Your task to perform on an android device: turn notification dots on Image 0: 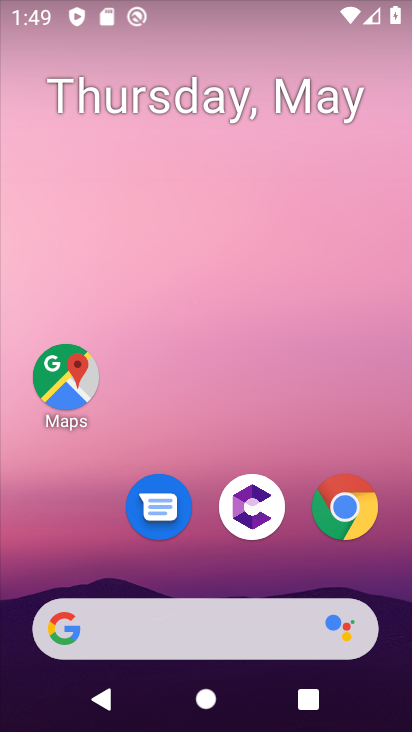
Step 0: drag from (321, 430) to (304, 66)
Your task to perform on an android device: turn notification dots on Image 1: 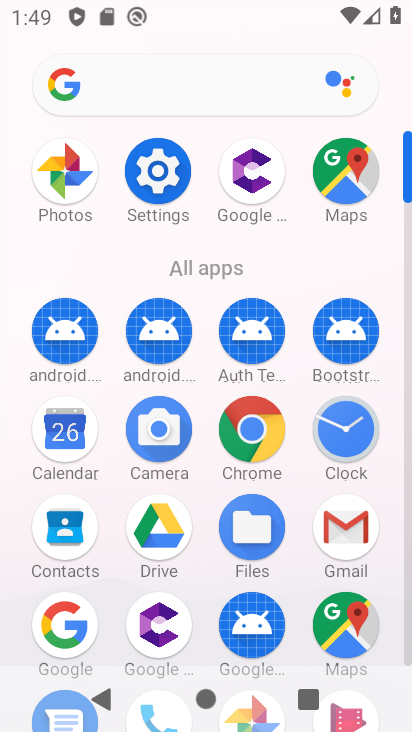
Step 1: click (152, 178)
Your task to perform on an android device: turn notification dots on Image 2: 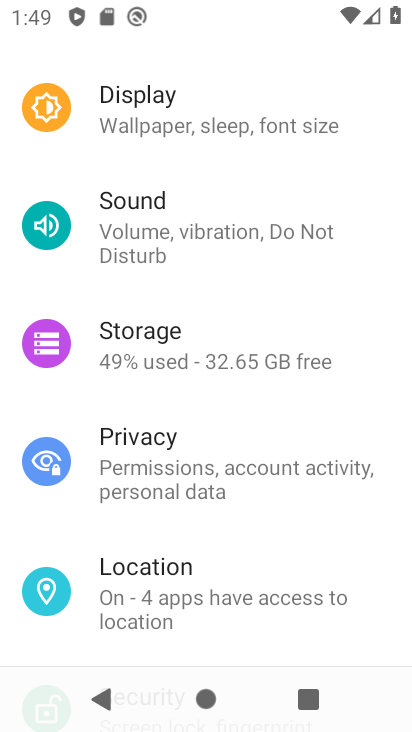
Step 2: drag from (271, 540) to (273, 49)
Your task to perform on an android device: turn notification dots on Image 3: 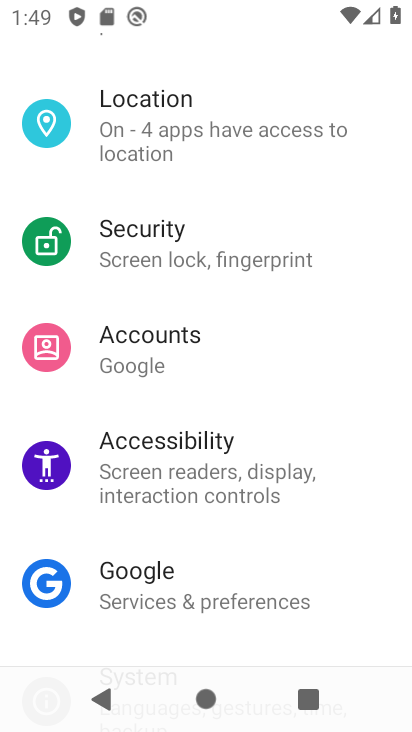
Step 3: drag from (241, 536) to (246, 722)
Your task to perform on an android device: turn notification dots on Image 4: 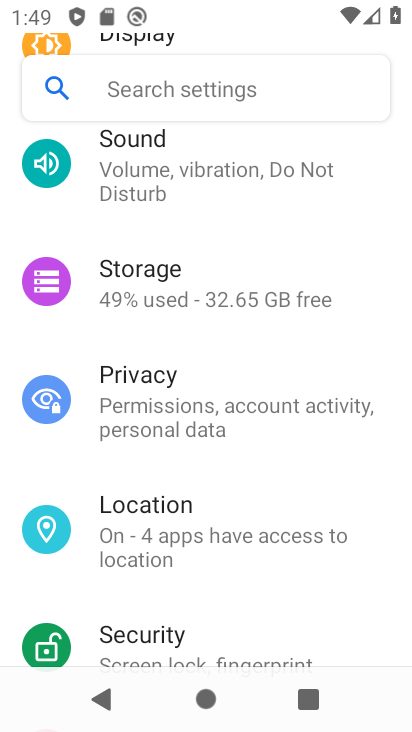
Step 4: drag from (278, 217) to (218, 712)
Your task to perform on an android device: turn notification dots on Image 5: 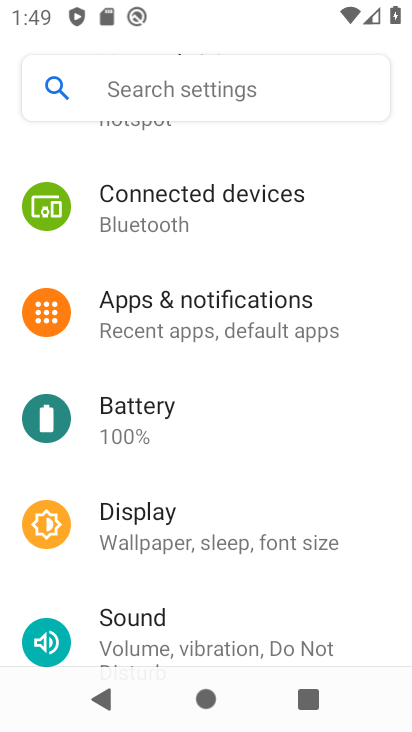
Step 5: click (174, 316)
Your task to perform on an android device: turn notification dots on Image 6: 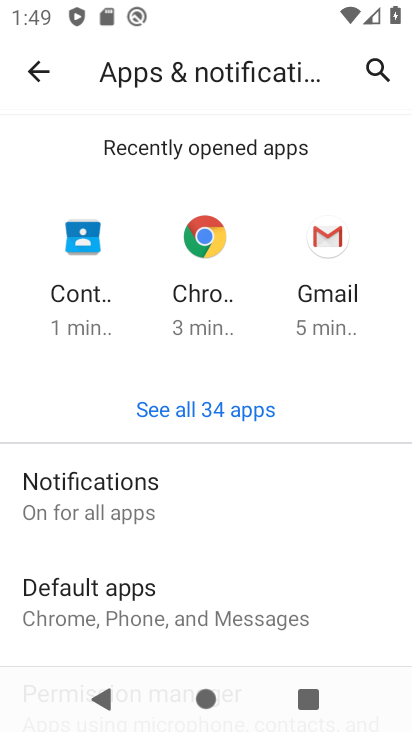
Step 6: drag from (316, 567) to (312, 216)
Your task to perform on an android device: turn notification dots on Image 7: 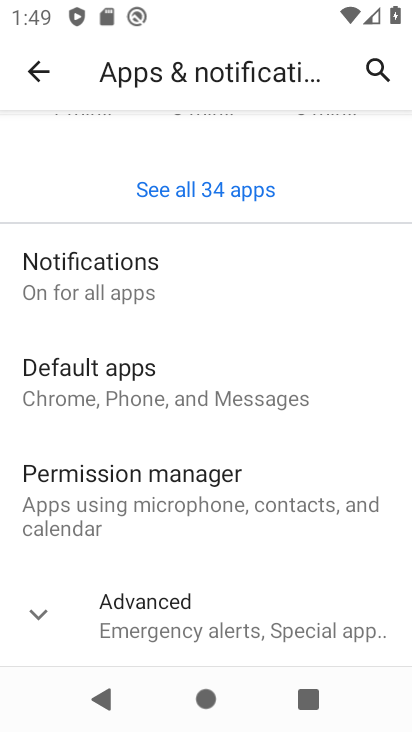
Step 7: click (124, 272)
Your task to perform on an android device: turn notification dots on Image 8: 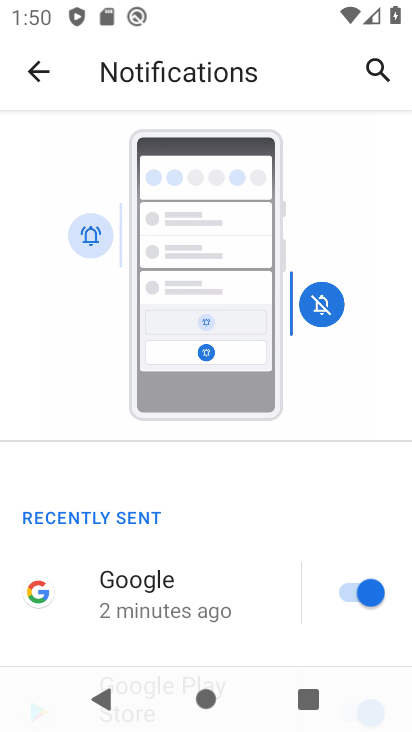
Step 8: drag from (276, 519) to (317, 2)
Your task to perform on an android device: turn notification dots on Image 9: 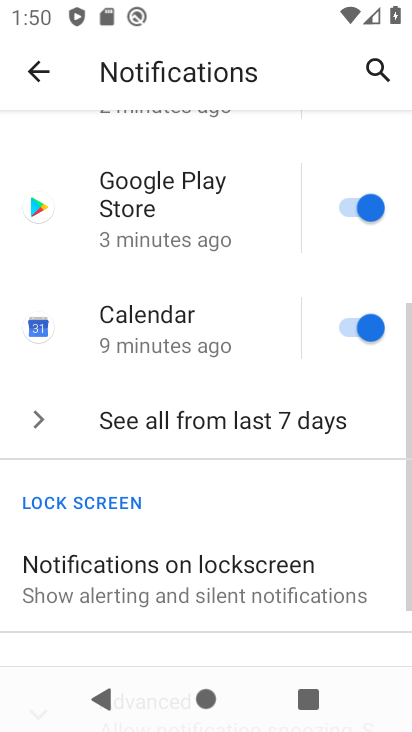
Step 9: drag from (165, 516) to (183, 213)
Your task to perform on an android device: turn notification dots on Image 10: 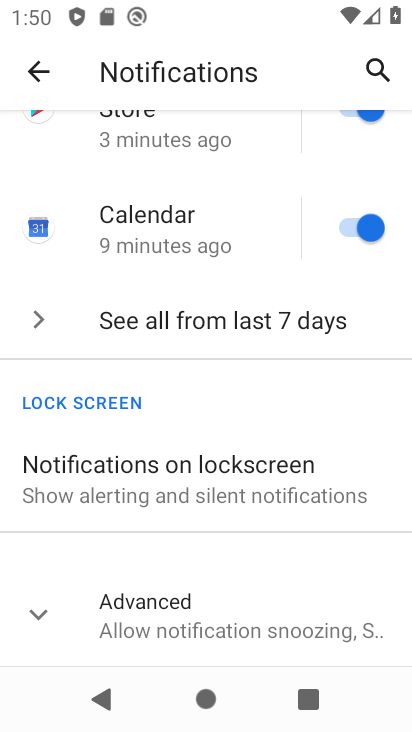
Step 10: click (37, 612)
Your task to perform on an android device: turn notification dots on Image 11: 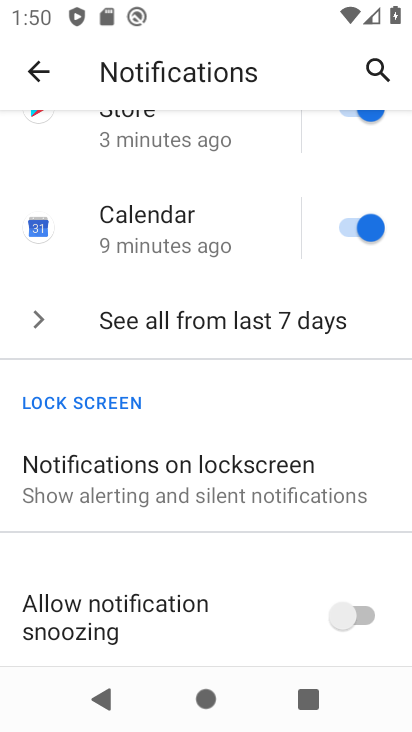
Step 11: task complete